Your task to perform on an android device: change timer sound Image 0: 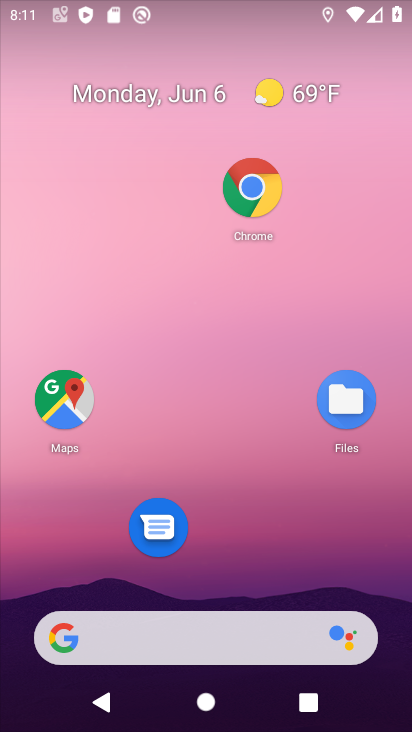
Step 0: drag from (242, 307) to (243, 78)
Your task to perform on an android device: change timer sound Image 1: 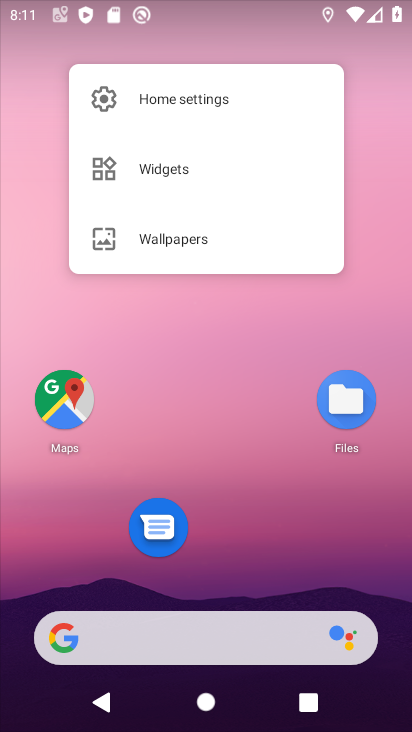
Step 1: click (289, 534)
Your task to perform on an android device: change timer sound Image 2: 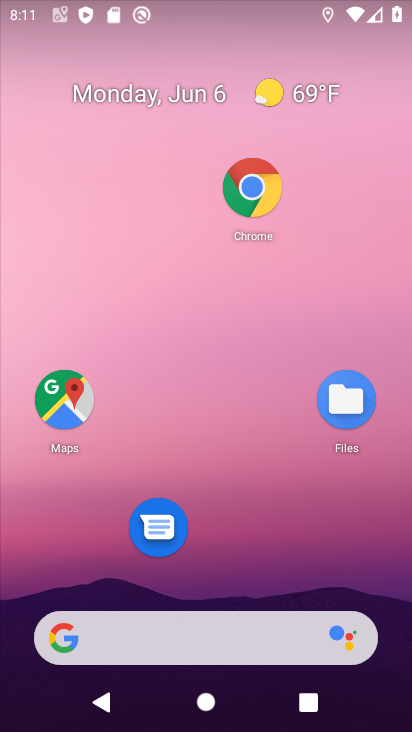
Step 2: drag from (226, 537) to (212, 92)
Your task to perform on an android device: change timer sound Image 3: 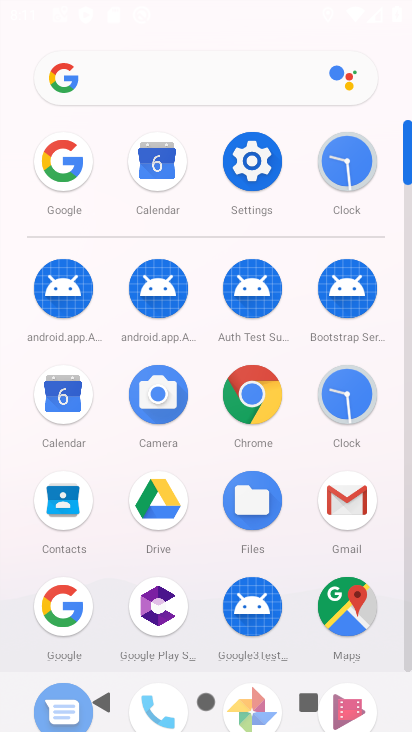
Step 3: click (355, 393)
Your task to perform on an android device: change timer sound Image 4: 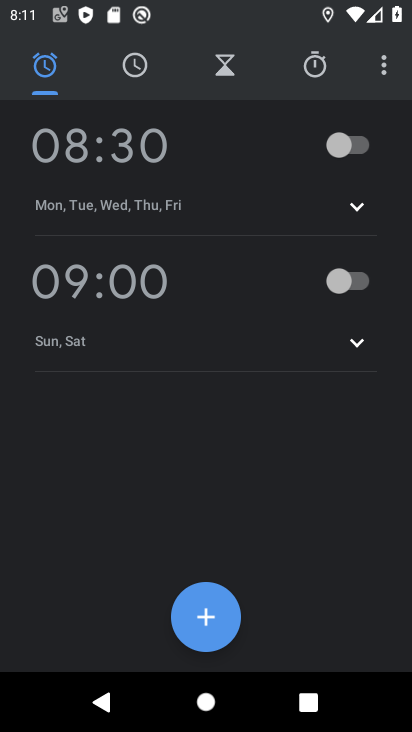
Step 4: click (365, 75)
Your task to perform on an android device: change timer sound Image 5: 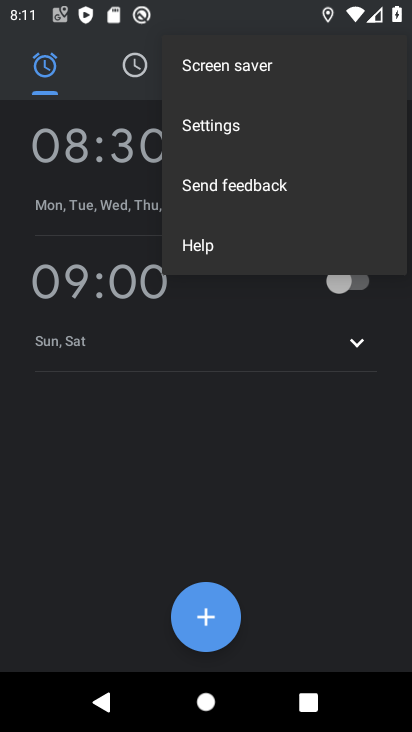
Step 5: click (220, 120)
Your task to perform on an android device: change timer sound Image 6: 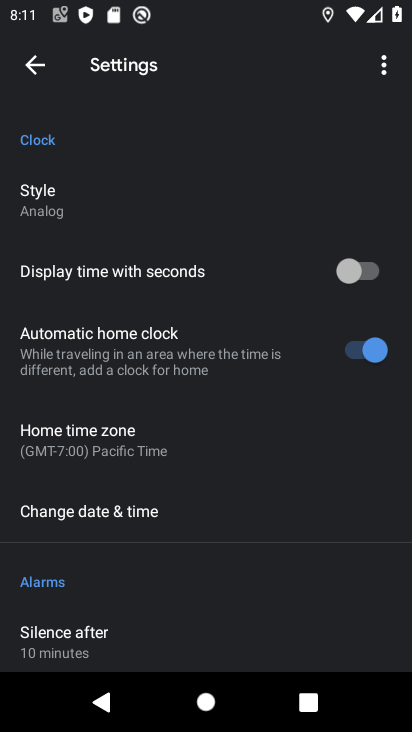
Step 6: drag from (97, 595) to (110, 204)
Your task to perform on an android device: change timer sound Image 7: 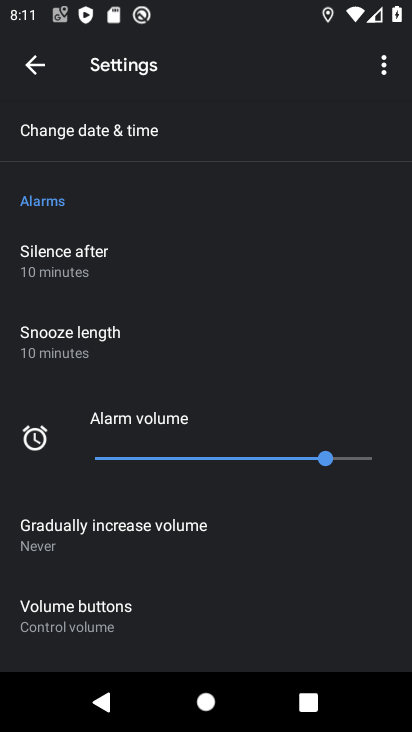
Step 7: click (189, 215)
Your task to perform on an android device: change timer sound Image 8: 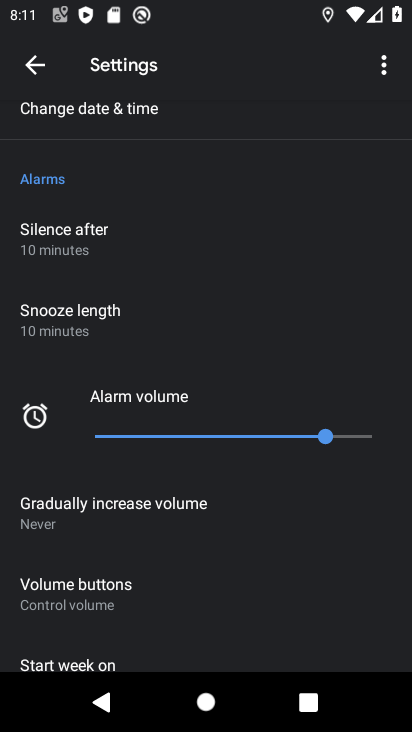
Step 8: drag from (166, 488) to (144, 265)
Your task to perform on an android device: change timer sound Image 9: 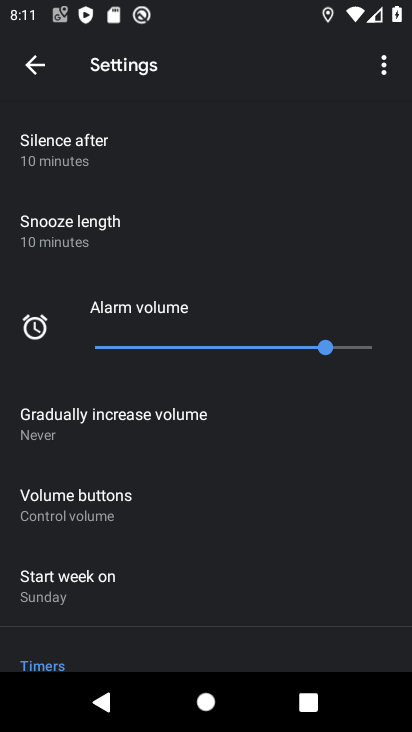
Step 9: drag from (179, 276) to (182, 173)
Your task to perform on an android device: change timer sound Image 10: 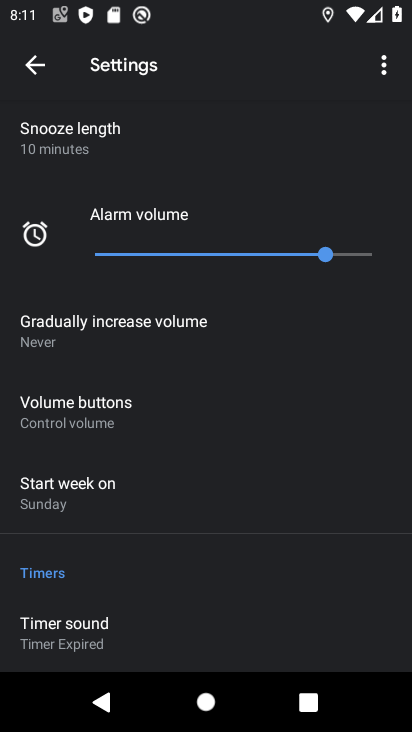
Step 10: click (115, 630)
Your task to perform on an android device: change timer sound Image 11: 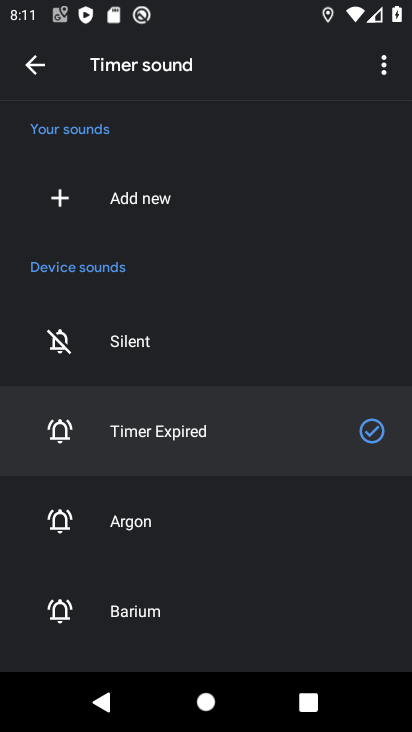
Step 11: click (128, 513)
Your task to perform on an android device: change timer sound Image 12: 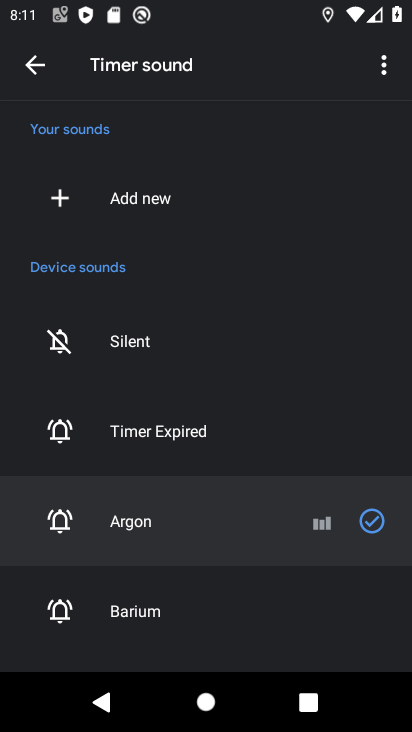
Step 12: task complete